Your task to perform on an android device: turn off location history Image 0: 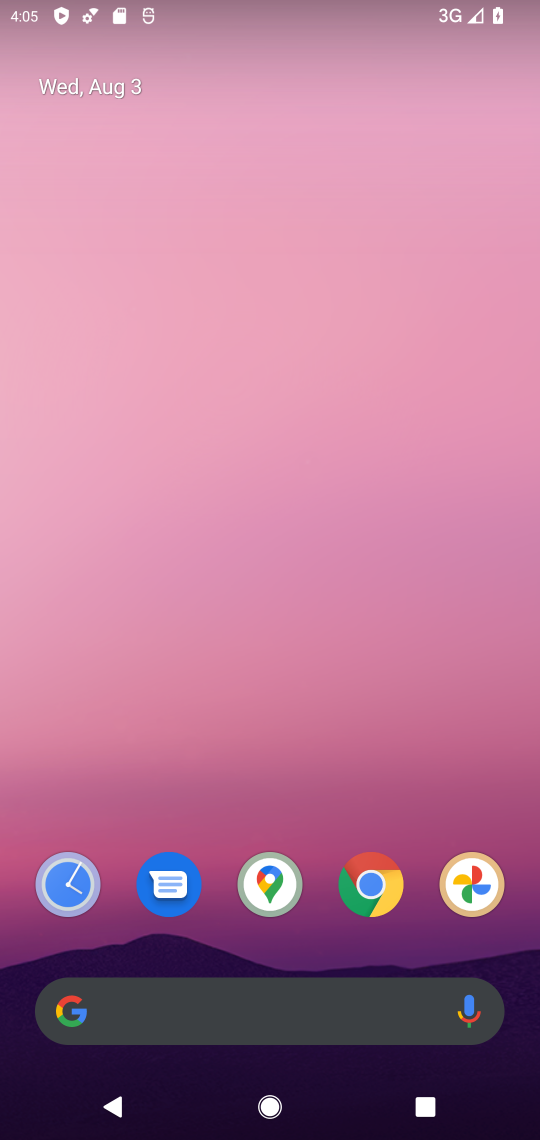
Step 0: click (382, 905)
Your task to perform on an android device: turn off location history Image 1: 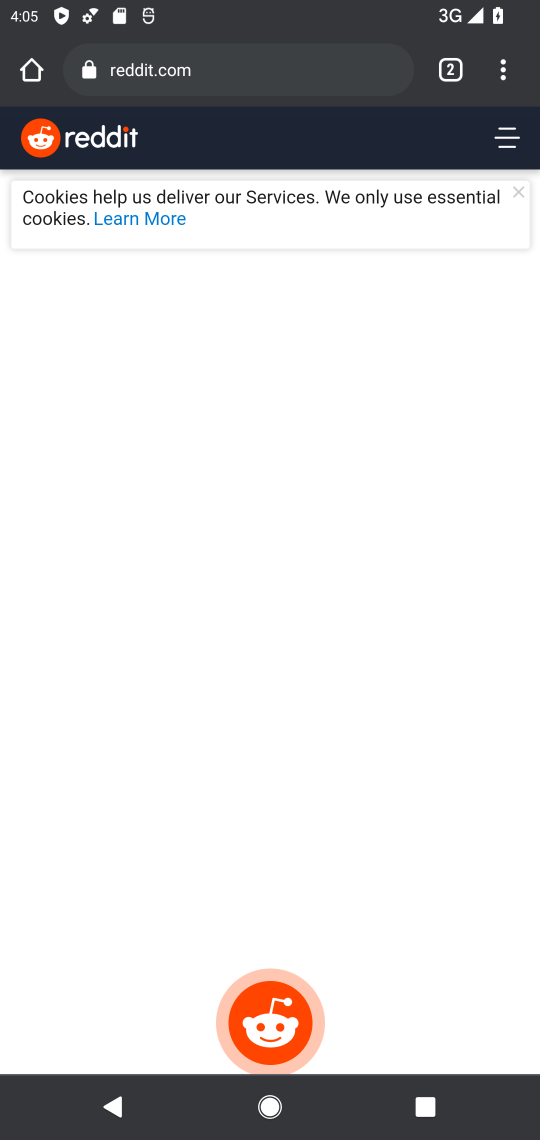
Step 1: click (500, 57)
Your task to perform on an android device: turn off location history Image 2: 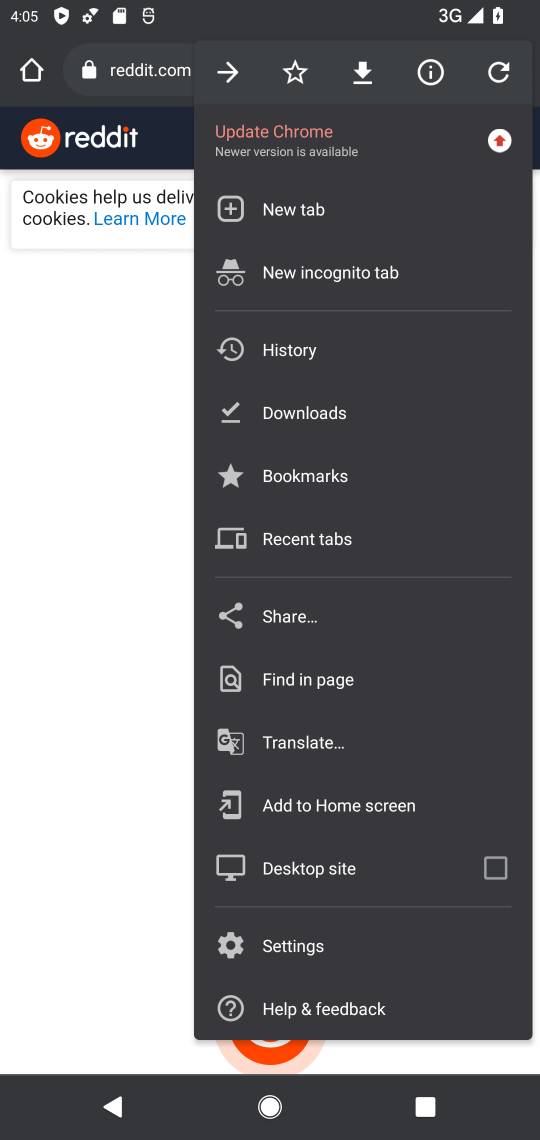
Step 2: click (262, 958)
Your task to perform on an android device: turn off location history Image 3: 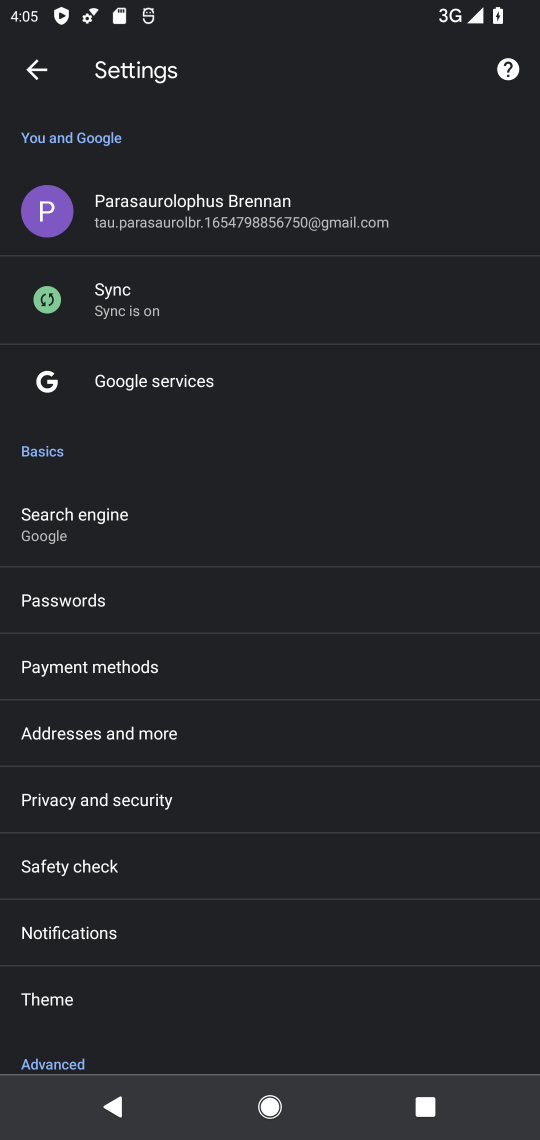
Step 3: task complete